Your task to perform on an android device: toggle pop-ups in chrome Image 0: 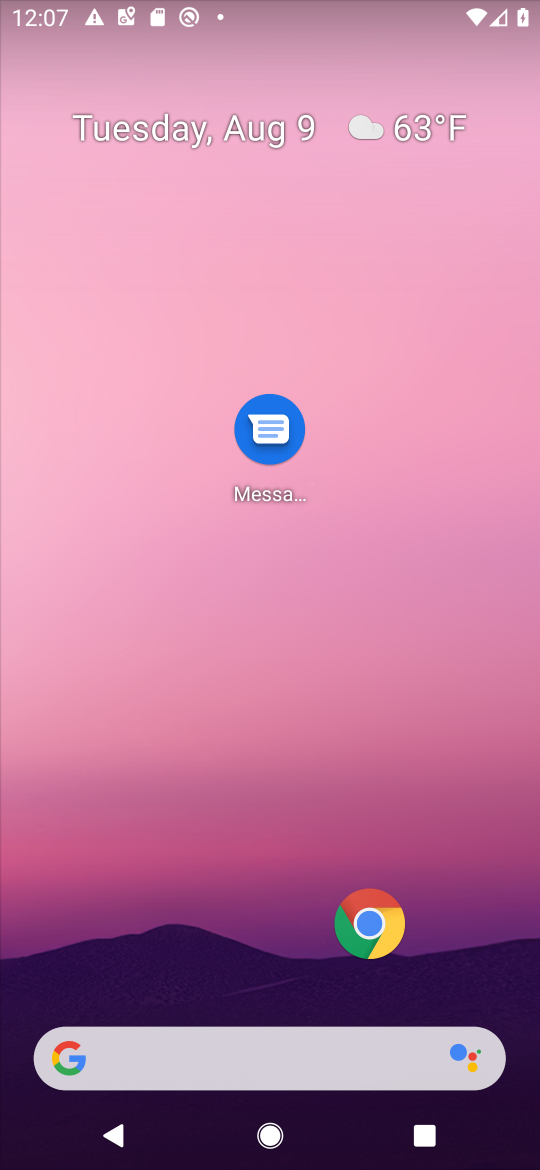
Step 0: click (358, 901)
Your task to perform on an android device: toggle pop-ups in chrome Image 1: 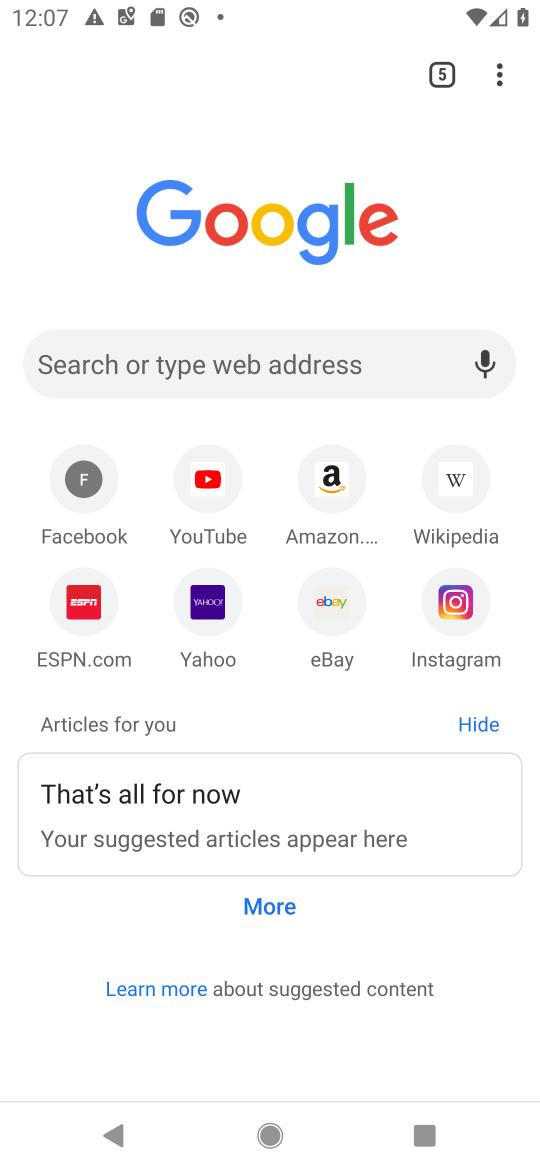
Step 1: click (504, 76)
Your task to perform on an android device: toggle pop-ups in chrome Image 2: 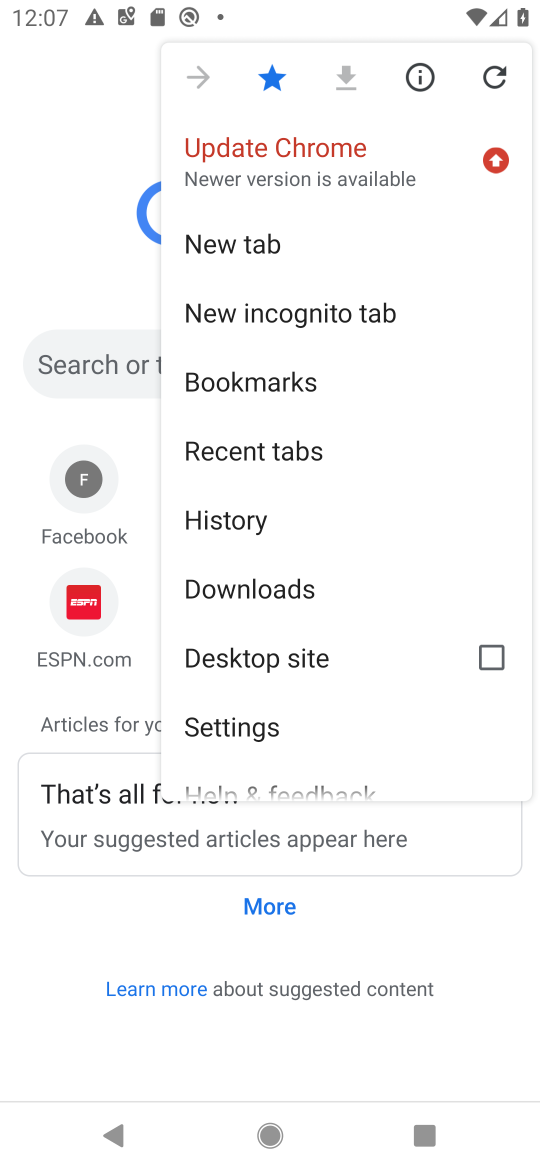
Step 2: click (221, 733)
Your task to perform on an android device: toggle pop-ups in chrome Image 3: 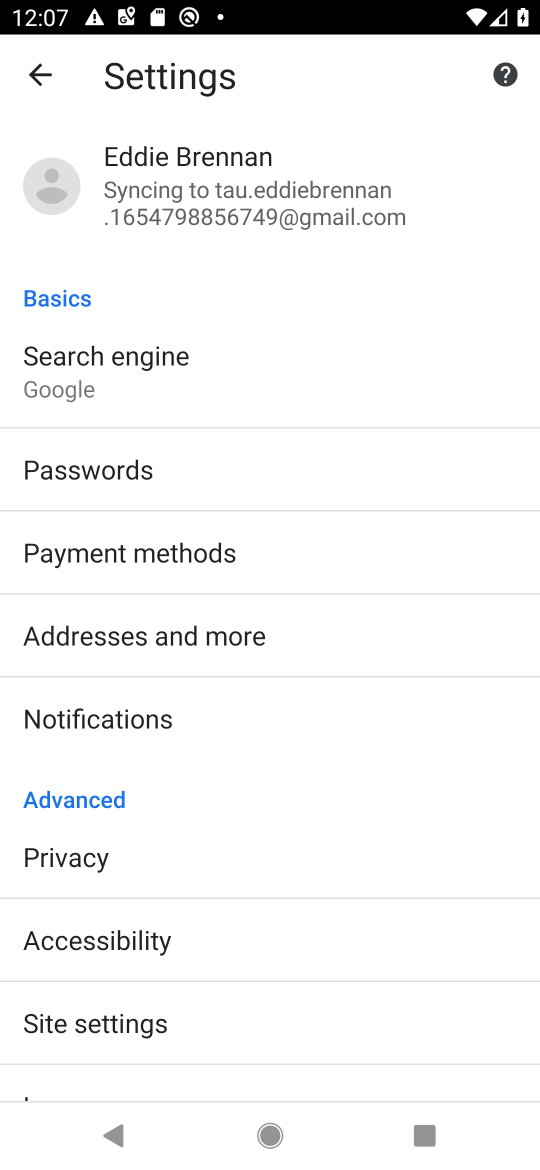
Step 3: click (98, 1033)
Your task to perform on an android device: toggle pop-ups in chrome Image 4: 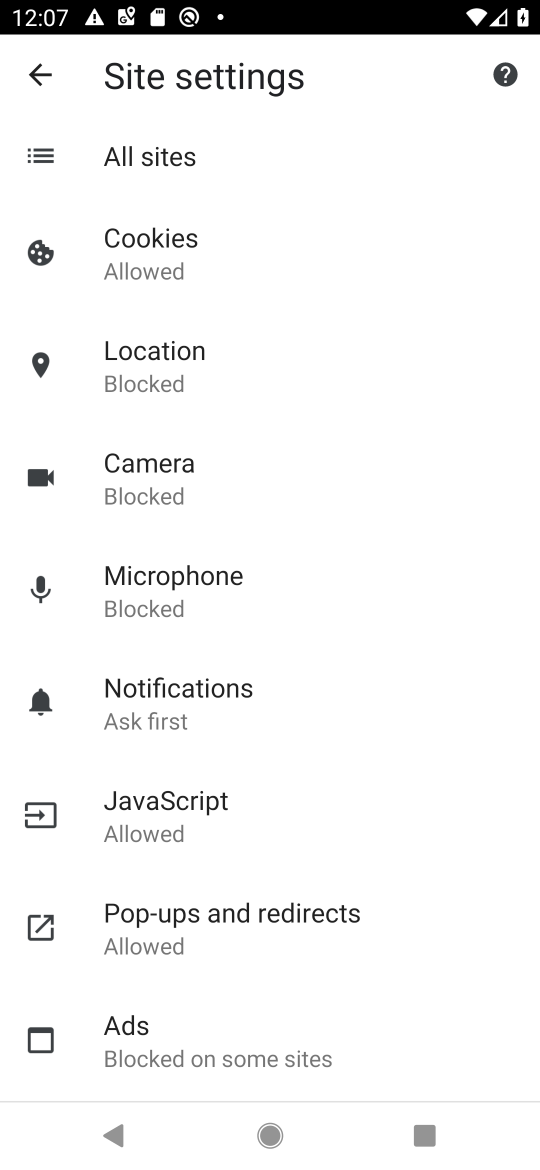
Step 4: click (176, 933)
Your task to perform on an android device: toggle pop-ups in chrome Image 5: 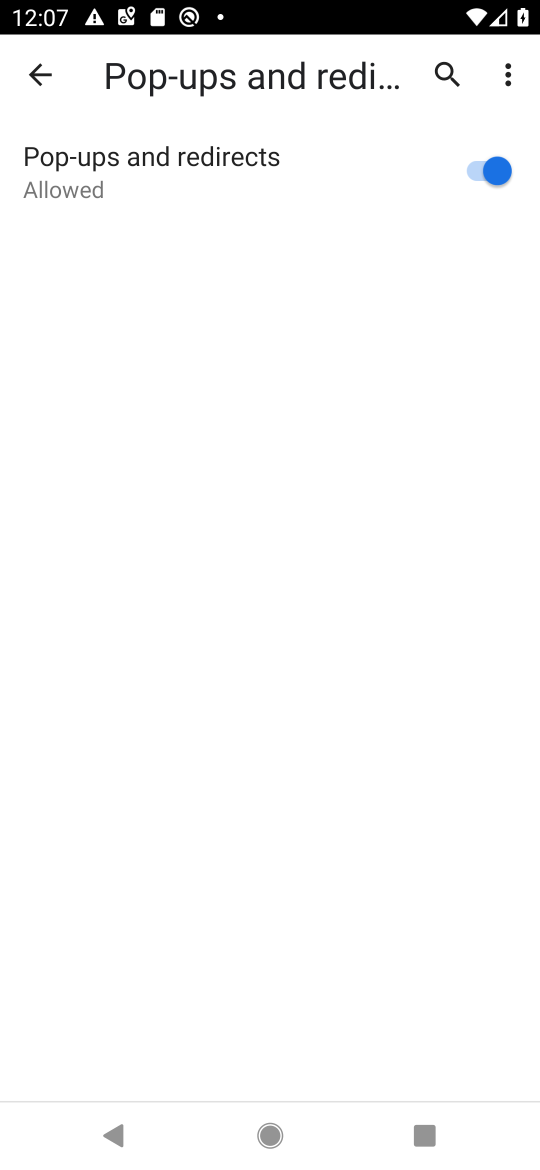
Step 5: task complete